Your task to perform on an android device: Search for Italian restaurants on Maps Image 0: 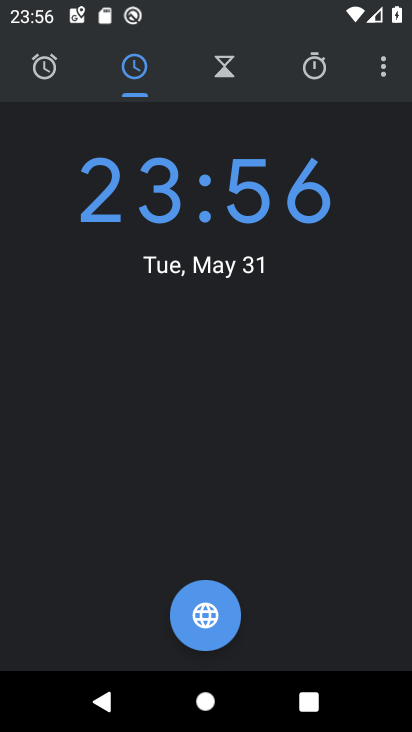
Step 0: press home button
Your task to perform on an android device: Search for Italian restaurants on Maps Image 1: 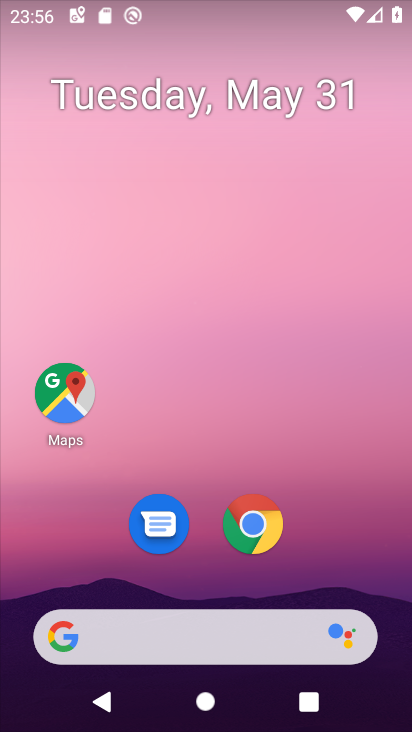
Step 1: click (65, 384)
Your task to perform on an android device: Search for Italian restaurants on Maps Image 2: 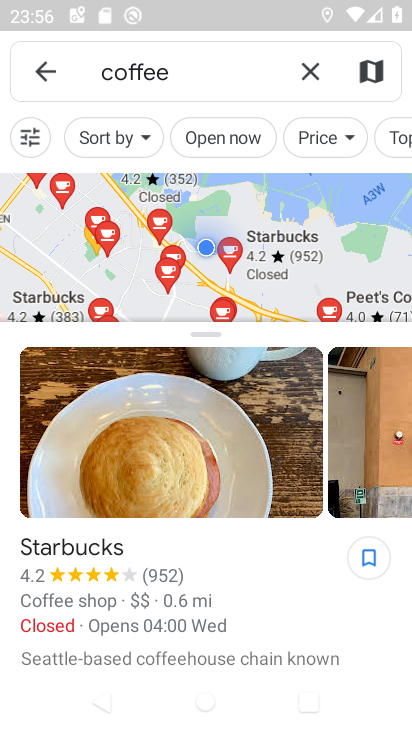
Step 2: click (310, 72)
Your task to perform on an android device: Search for Italian restaurants on Maps Image 3: 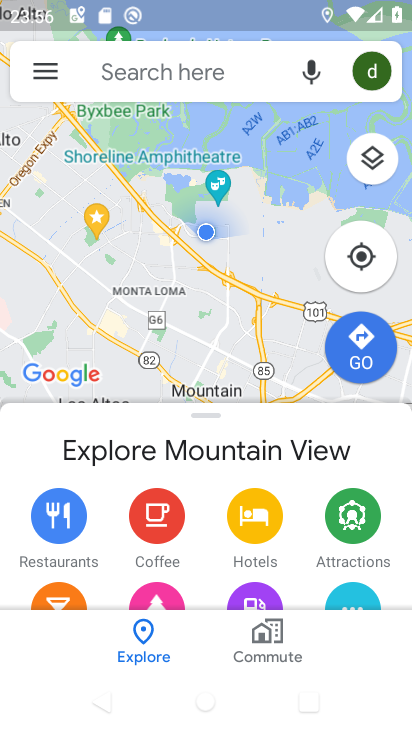
Step 3: click (212, 77)
Your task to perform on an android device: Search for Italian restaurants on Maps Image 4: 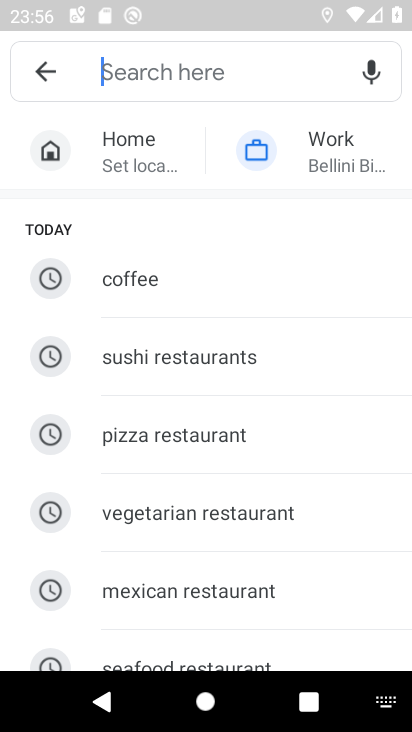
Step 4: drag from (182, 481) to (206, 260)
Your task to perform on an android device: Search for Italian restaurants on Maps Image 5: 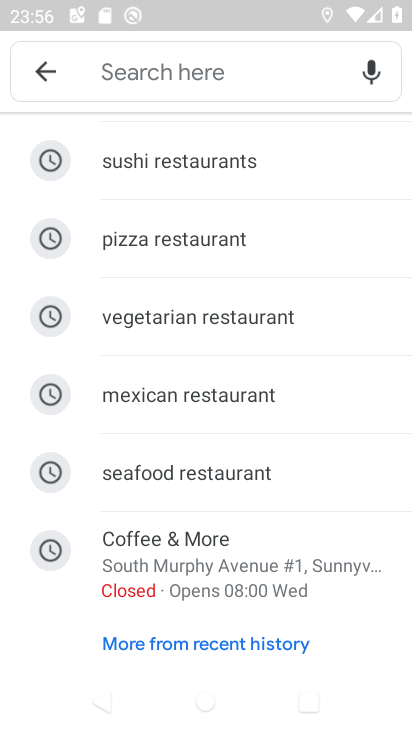
Step 5: drag from (206, 227) to (208, 504)
Your task to perform on an android device: Search for Italian restaurants on Maps Image 6: 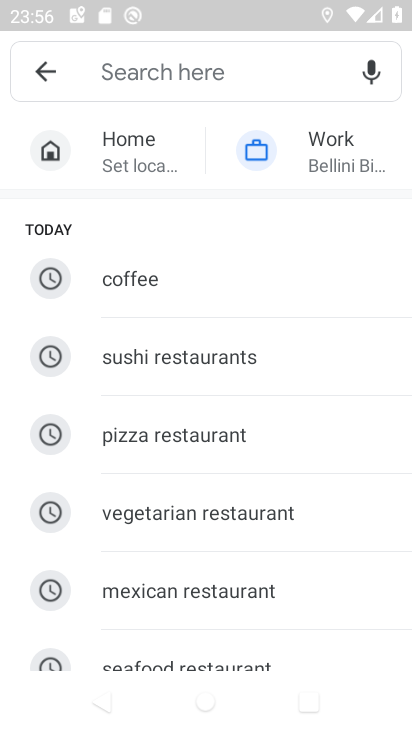
Step 6: click (238, 63)
Your task to perform on an android device: Search for Italian restaurants on Maps Image 7: 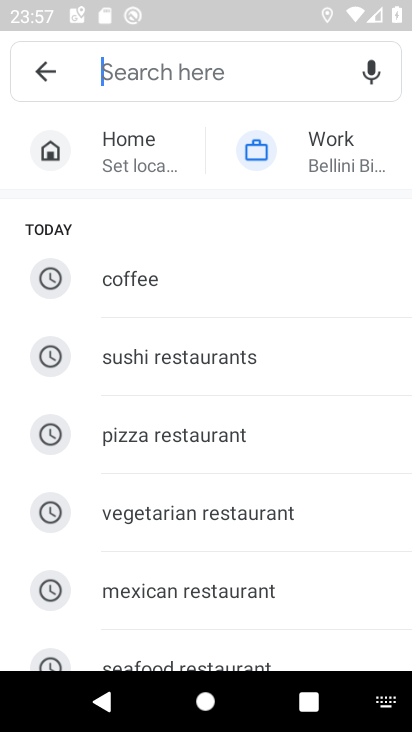
Step 7: type "italian restaurants"
Your task to perform on an android device: Search for Italian restaurants on Maps Image 8: 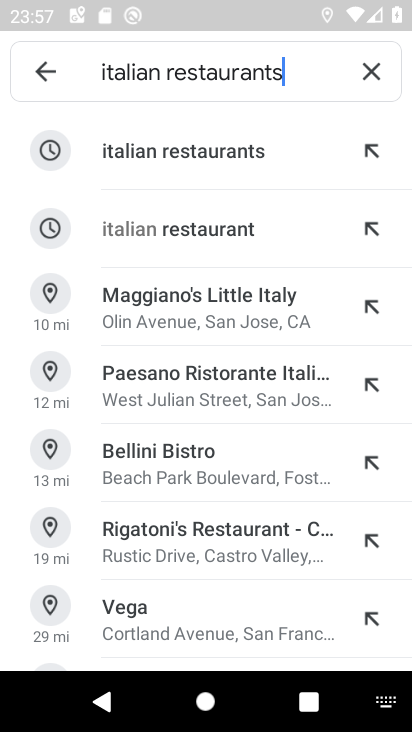
Step 8: click (216, 142)
Your task to perform on an android device: Search for Italian restaurants on Maps Image 9: 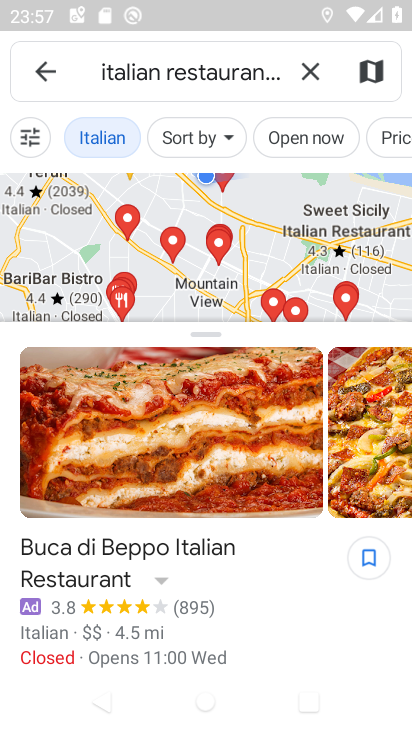
Step 9: task complete